Your task to perform on an android device: Go to location settings Image 0: 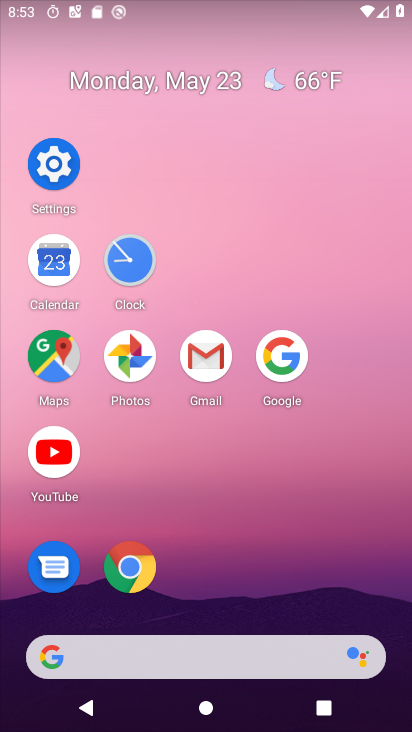
Step 0: click (64, 177)
Your task to perform on an android device: Go to location settings Image 1: 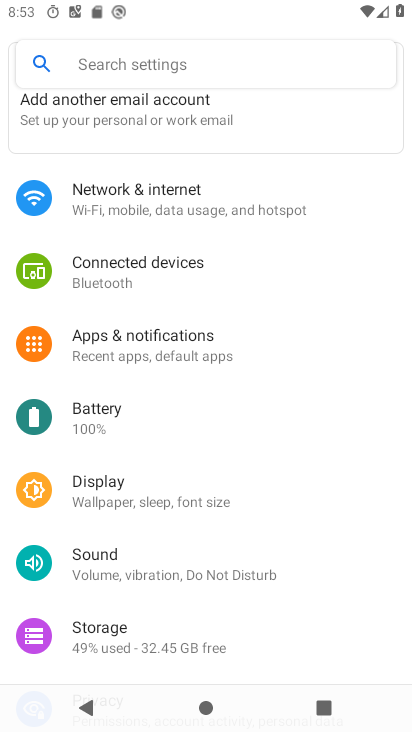
Step 1: drag from (197, 565) to (180, 244)
Your task to perform on an android device: Go to location settings Image 2: 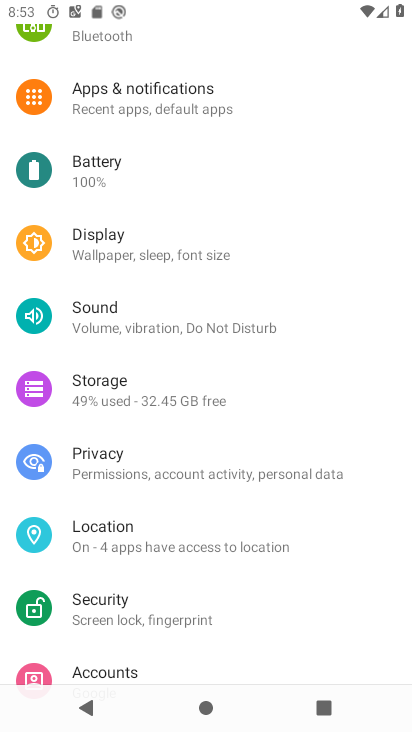
Step 2: click (181, 561)
Your task to perform on an android device: Go to location settings Image 3: 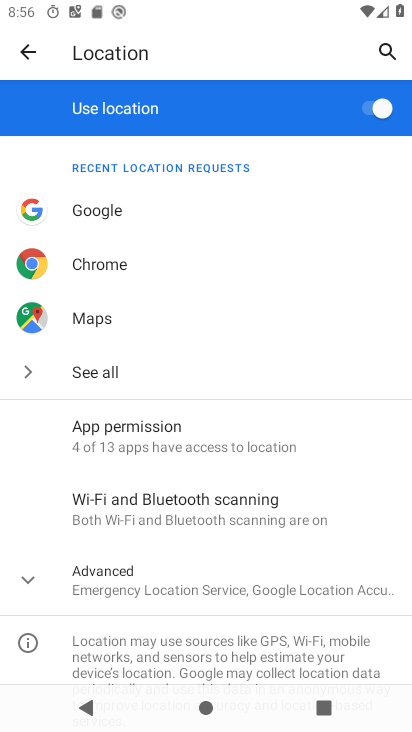
Step 3: task complete